Your task to perform on an android device: Go to notification settings Image 0: 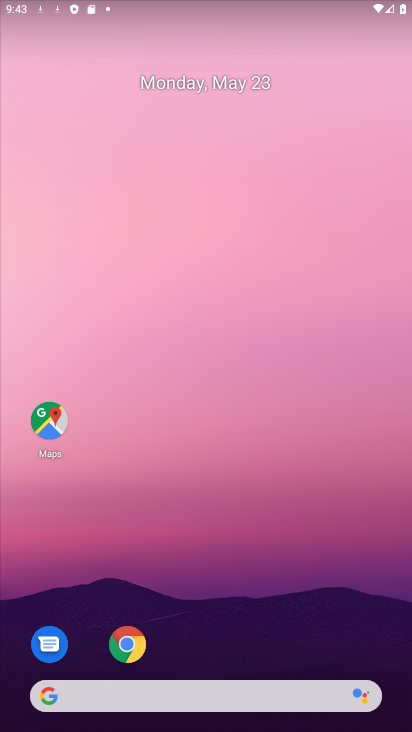
Step 0: drag from (239, 729) to (190, 137)
Your task to perform on an android device: Go to notification settings Image 1: 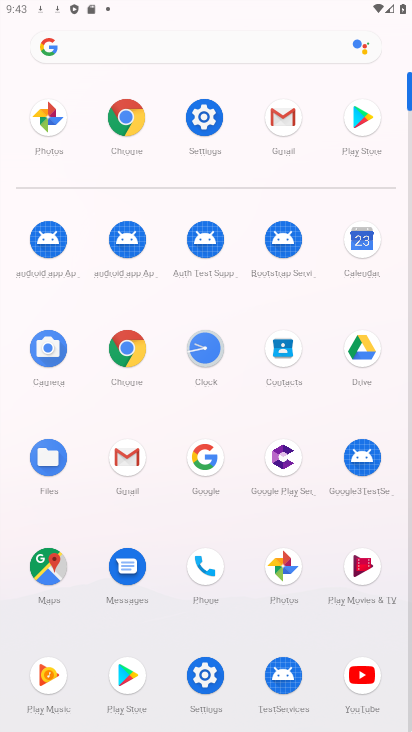
Step 1: click (204, 133)
Your task to perform on an android device: Go to notification settings Image 2: 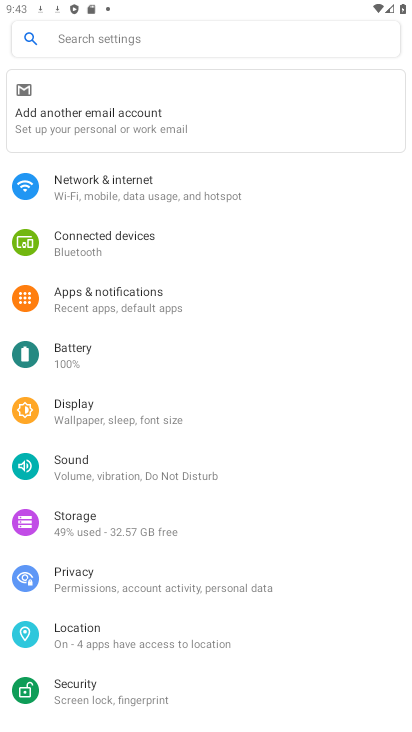
Step 2: click (166, 42)
Your task to perform on an android device: Go to notification settings Image 3: 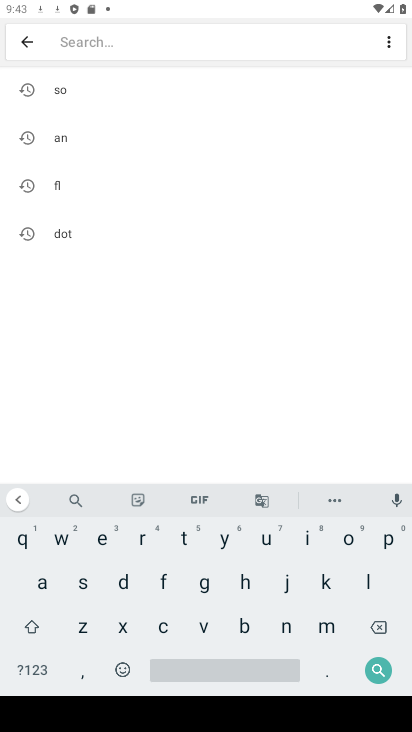
Step 3: click (281, 632)
Your task to perform on an android device: Go to notification settings Image 4: 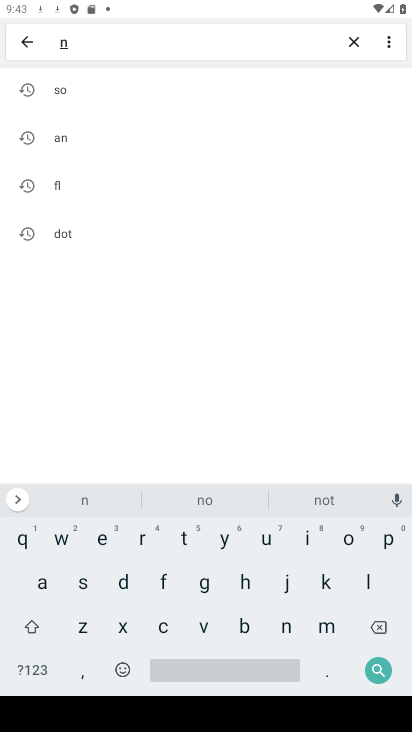
Step 4: click (347, 533)
Your task to perform on an android device: Go to notification settings Image 5: 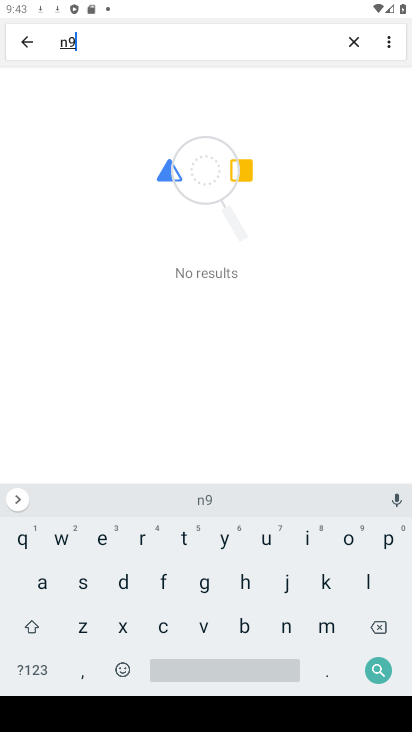
Step 5: click (378, 633)
Your task to perform on an android device: Go to notification settings Image 6: 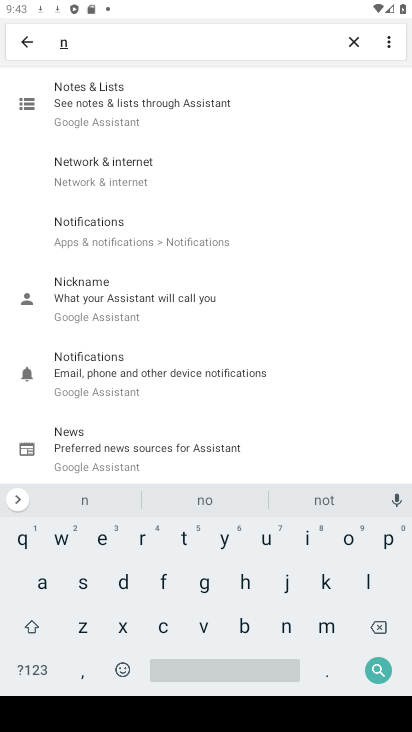
Step 6: click (343, 547)
Your task to perform on an android device: Go to notification settings Image 7: 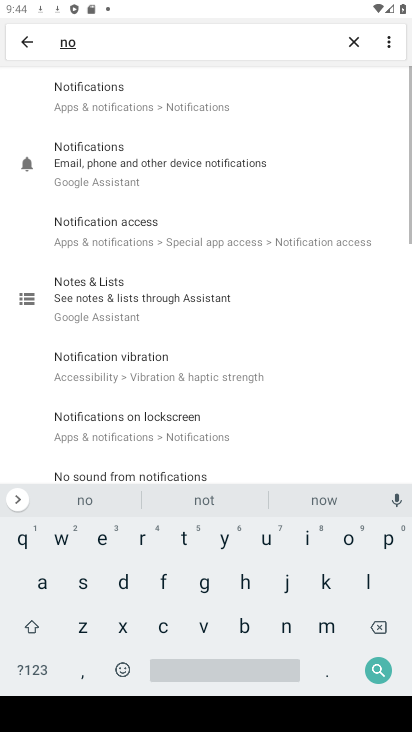
Step 7: click (130, 101)
Your task to perform on an android device: Go to notification settings Image 8: 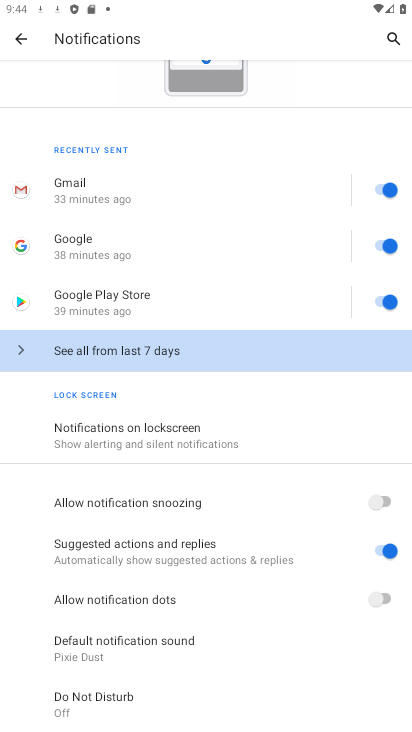
Step 8: click (115, 436)
Your task to perform on an android device: Go to notification settings Image 9: 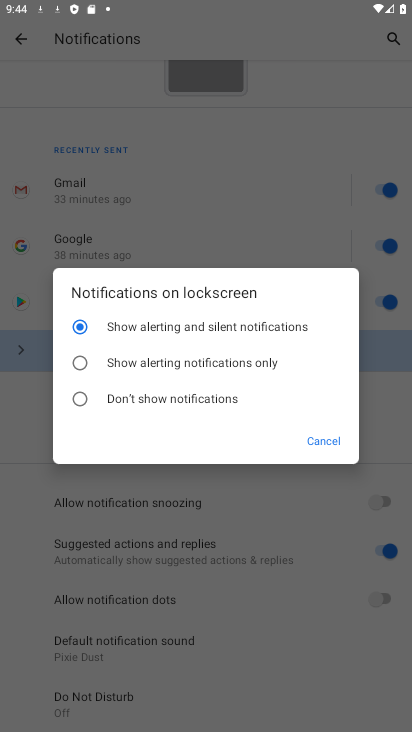
Step 9: task complete